Your task to perform on an android device: Open Google Image 0: 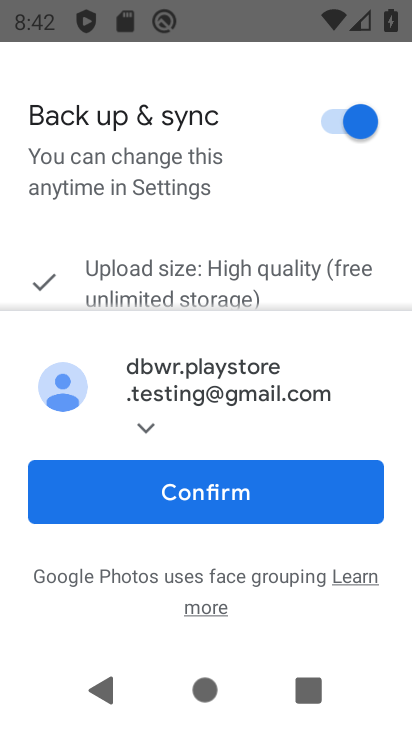
Step 0: press home button
Your task to perform on an android device: Open Google Image 1: 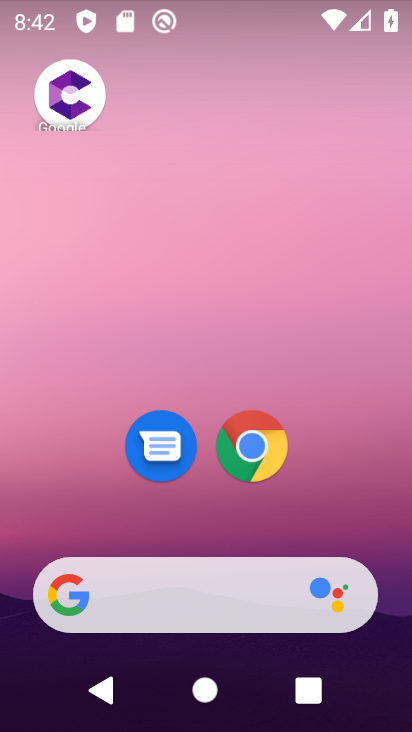
Step 1: drag from (329, 525) to (341, 106)
Your task to perform on an android device: Open Google Image 2: 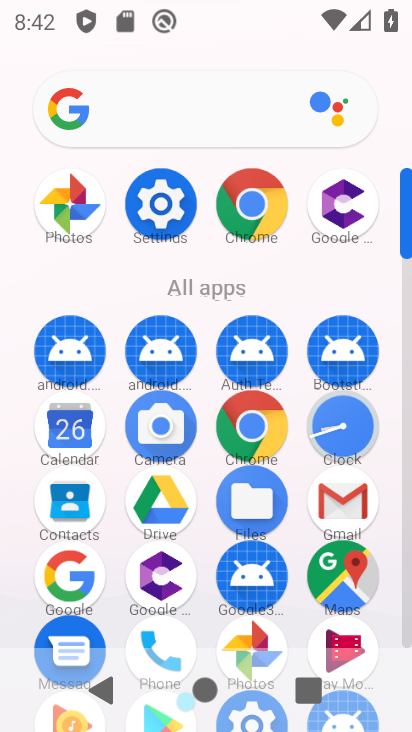
Step 2: click (66, 572)
Your task to perform on an android device: Open Google Image 3: 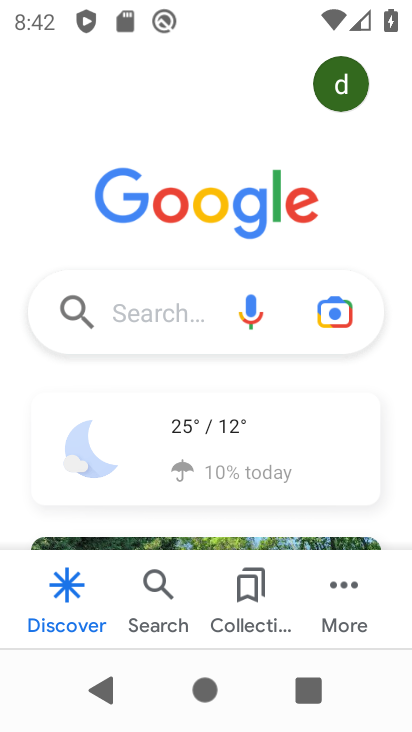
Step 3: task complete